Your task to perform on an android device: read, delete, or share a saved page in the chrome app Image 0: 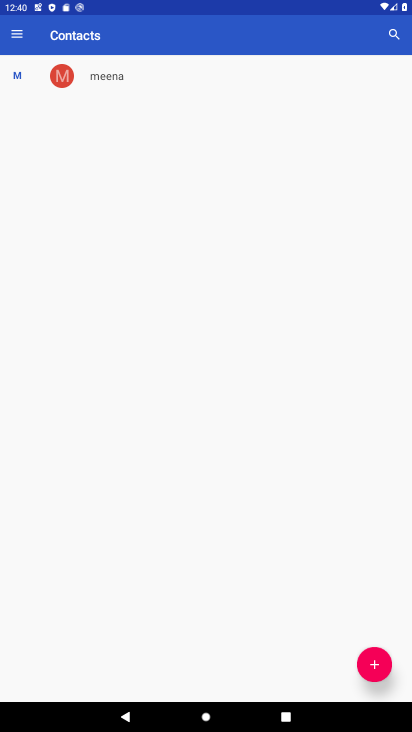
Step 0: press home button
Your task to perform on an android device: read, delete, or share a saved page in the chrome app Image 1: 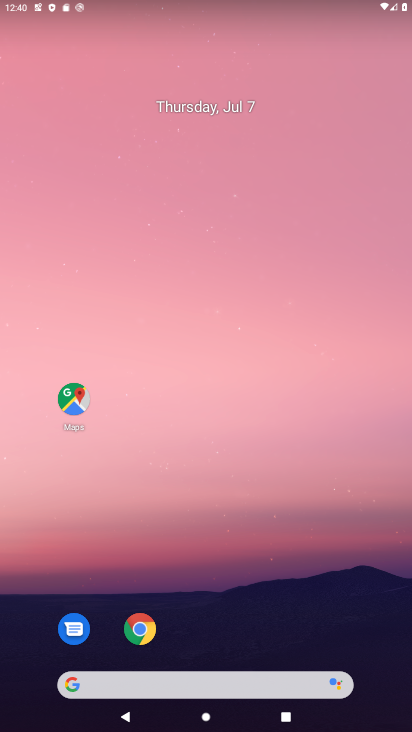
Step 1: click (142, 627)
Your task to perform on an android device: read, delete, or share a saved page in the chrome app Image 2: 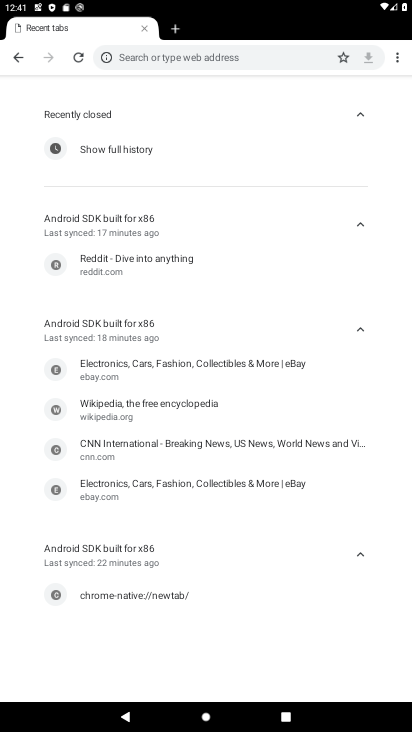
Step 2: click (399, 58)
Your task to perform on an android device: read, delete, or share a saved page in the chrome app Image 3: 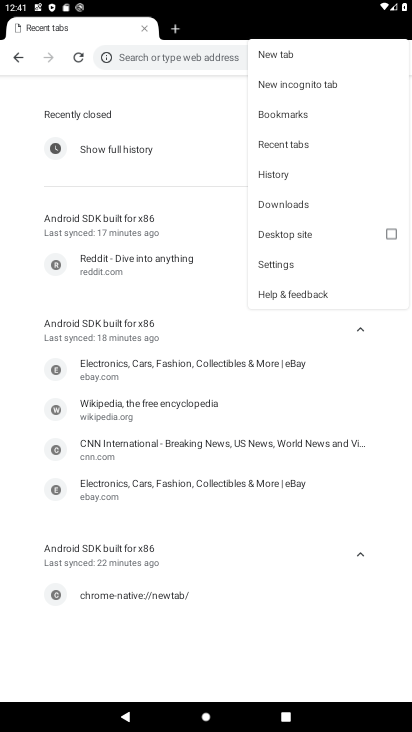
Step 3: click (298, 204)
Your task to perform on an android device: read, delete, or share a saved page in the chrome app Image 4: 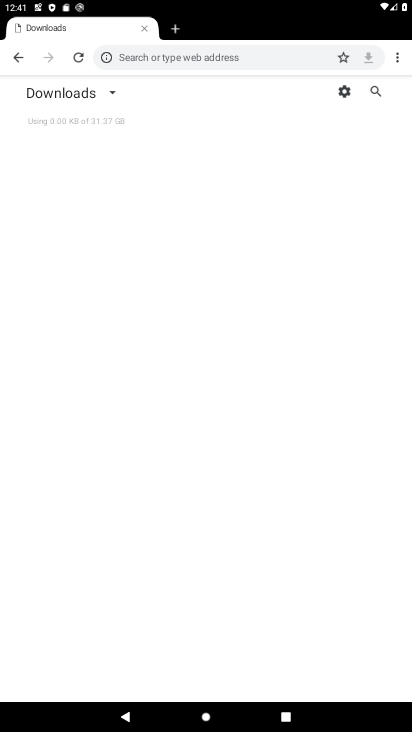
Step 4: click (108, 93)
Your task to perform on an android device: read, delete, or share a saved page in the chrome app Image 5: 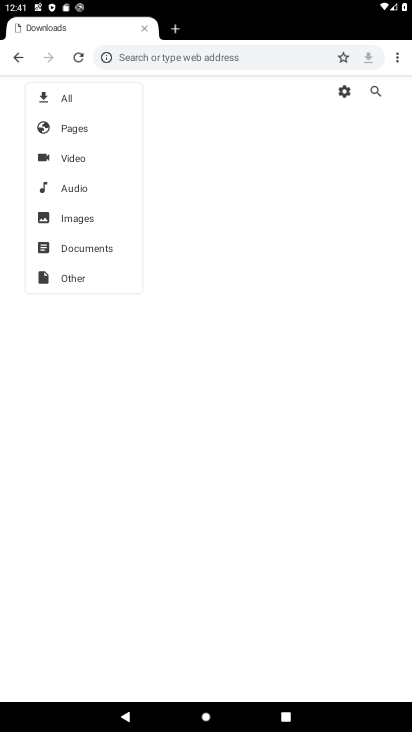
Step 5: click (72, 129)
Your task to perform on an android device: read, delete, or share a saved page in the chrome app Image 6: 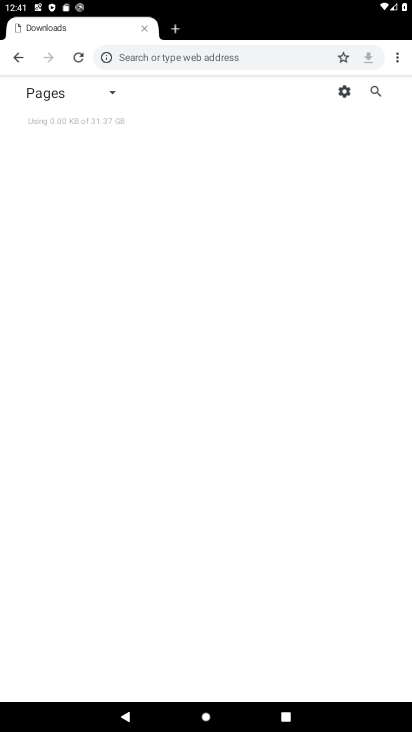
Step 6: click (113, 93)
Your task to perform on an android device: read, delete, or share a saved page in the chrome app Image 7: 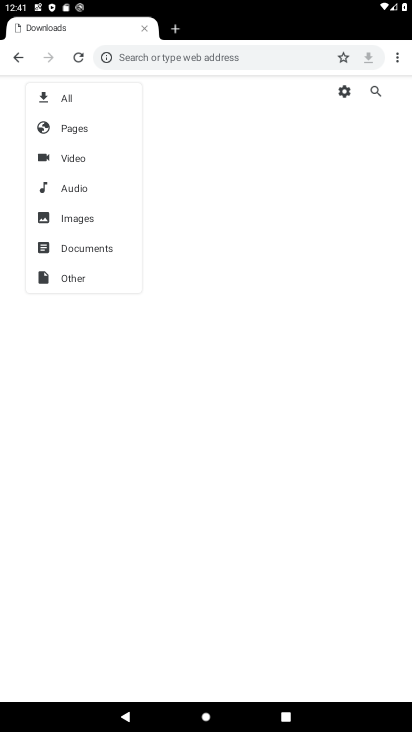
Step 7: click (78, 155)
Your task to perform on an android device: read, delete, or share a saved page in the chrome app Image 8: 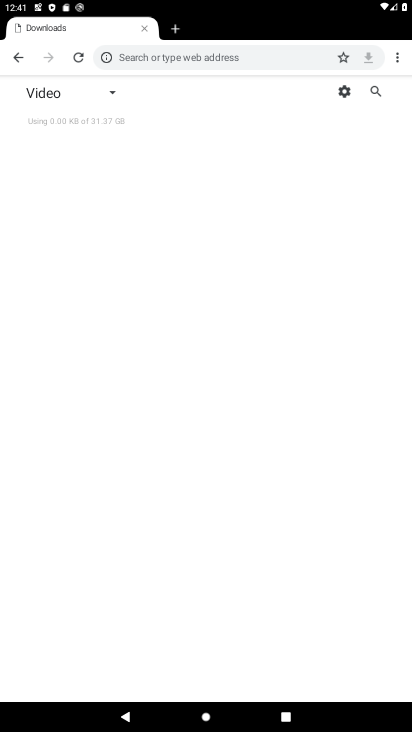
Step 8: click (115, 90)
Your task to perform on an android device: read, delete, or share a saved page in the chrome app Image 9: 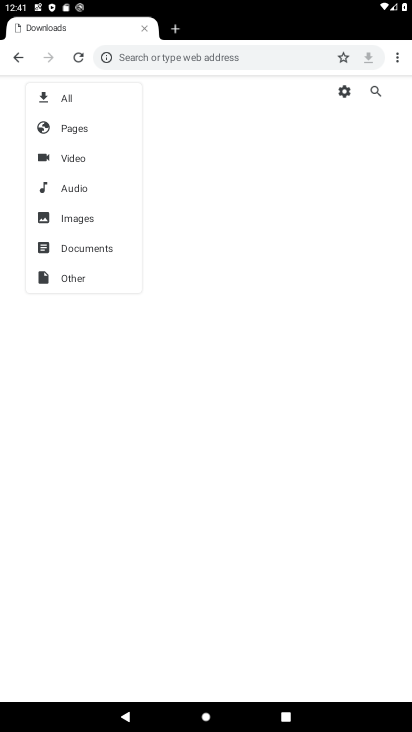
Step 9: click (85, 209)
Your task to perform on an android device: read, delete, or share a saved page in the chrome app Image 10: 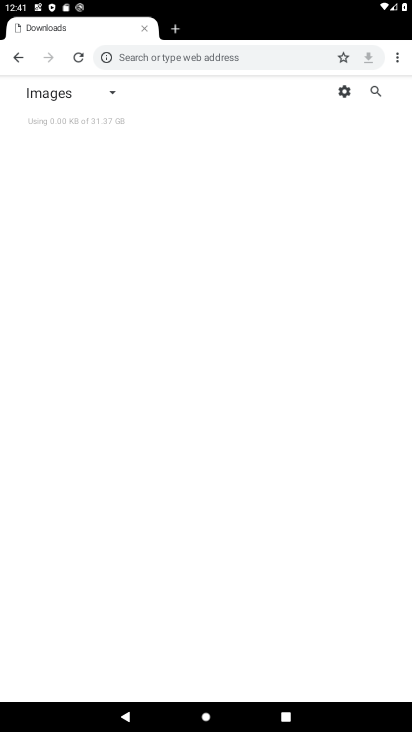
Step 10: task complete